Your task to perform on an android device: turn on data saver in the chrome app Image 0: 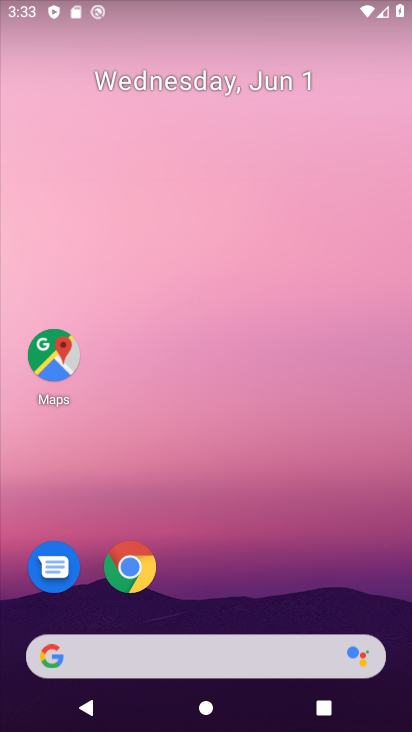
Step 0: click (140, 570)
Your task to perform on an android device: turn on data saver in the chrome app Image 1: 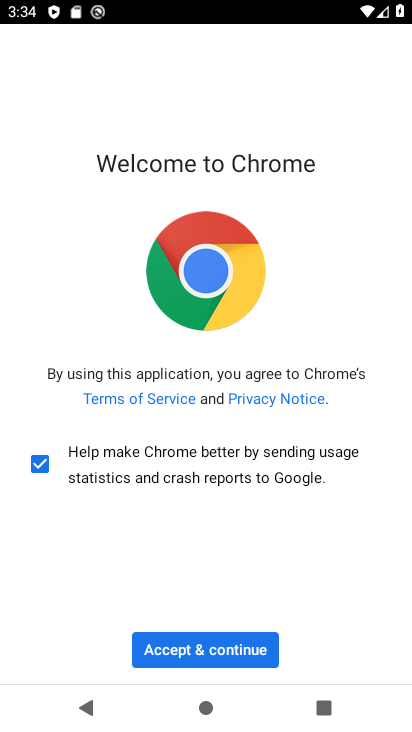
Step 1: click (208, 644)
Your task to perform on an android device: turn on data saver in the chrome app Image 2: 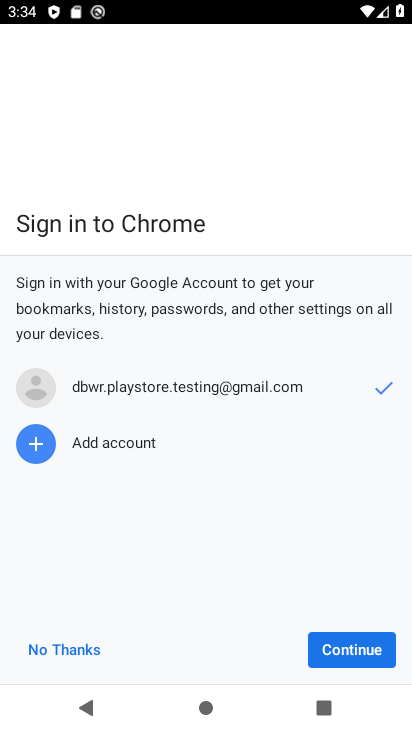
Step 2: click (340, 656)
Your task to perform on an android device: turn on data saver in the chrome app Image 3: 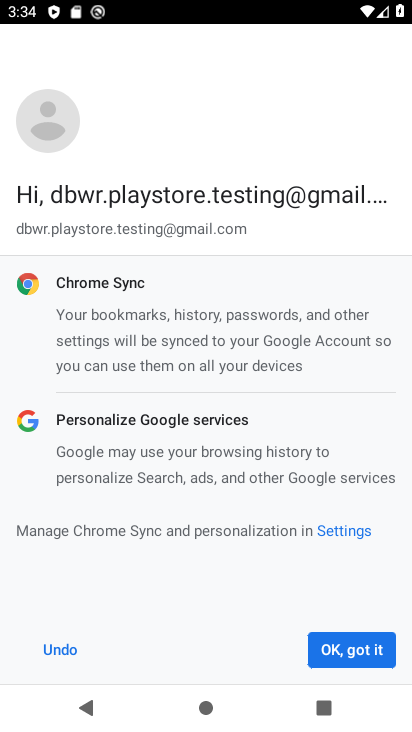
Step 3: click (347, 653)
Your task to perform on an android device: turn on data saver in the chrome app Image 4: 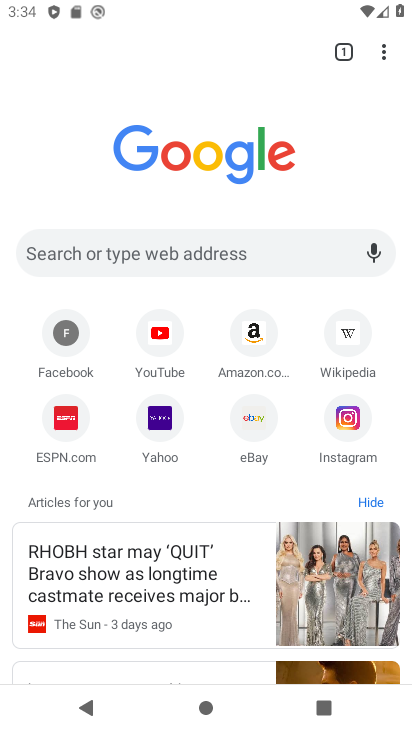
Step 4: click (383, 65)
Your task to perform on an android device: turn on data saver in the chrome app Image 5: 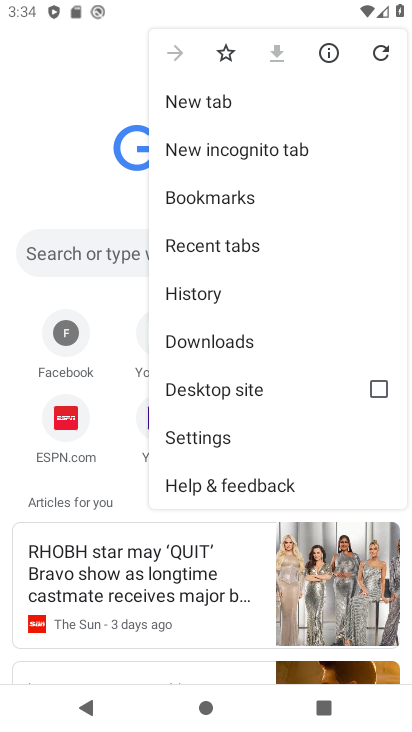
Step 5: click (262, 442)
Your task to perform on an android device: turn on data saver in the chrome app Image 6: 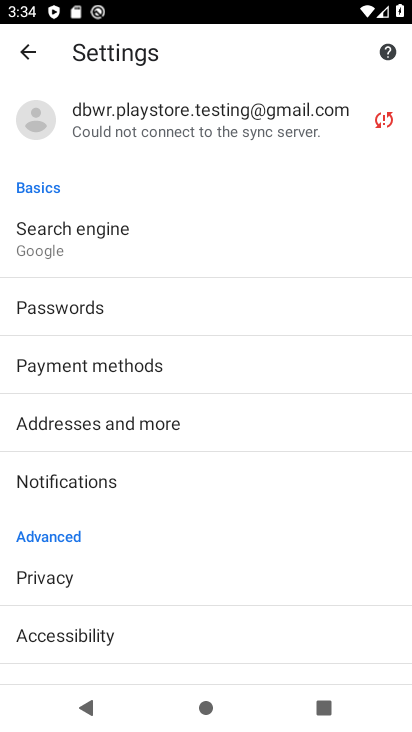
Step 6: drag from (248, 569) to (210, 212)
Your task to perform on an android device: turn on data saver in the chrome app Image 7: 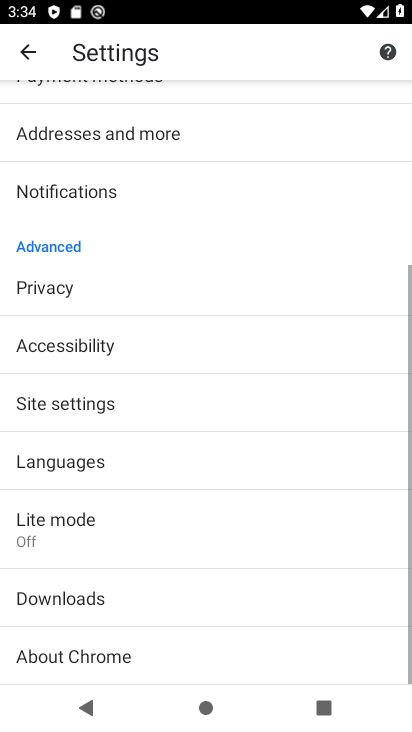
Step 7: click (188, 506)
Your task to perform on an android device: turn on data saver in the chrome app Image 8: 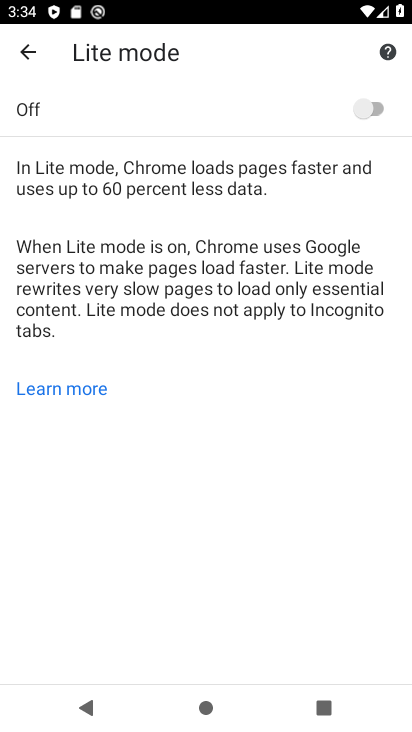
Step 8: click (374, 110)
Your task to perform on an android device: turn on data saver in the chrome app Image 9: 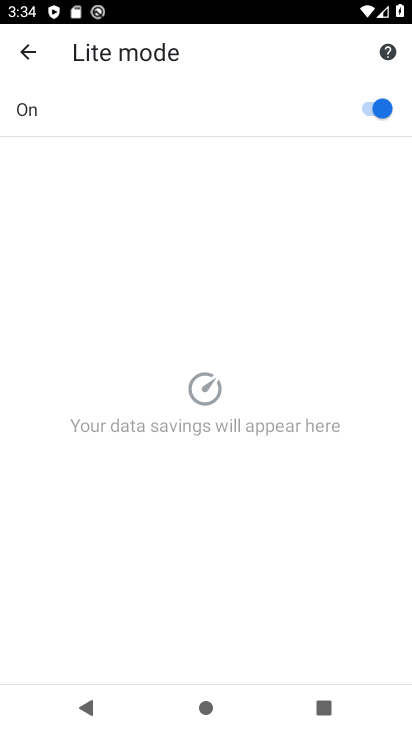
Step 9: task complete